Your task to perform on an android device: Search for Italian restaurants on Maps Image 0: 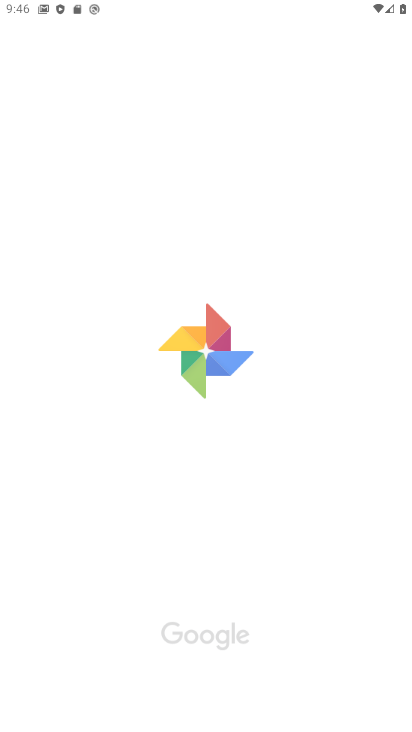
Step 0: drag from (255, 618) to (300, 136)
Your task to perform on an android device: Search for Italian restaurants on Maps Image 1: 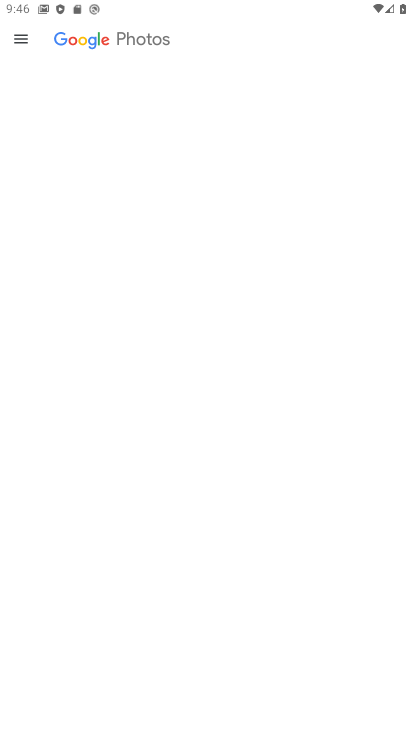
Step 1: press home button
Your task to perform on an android device: Search for Italian restaurants on Maps Image 2: 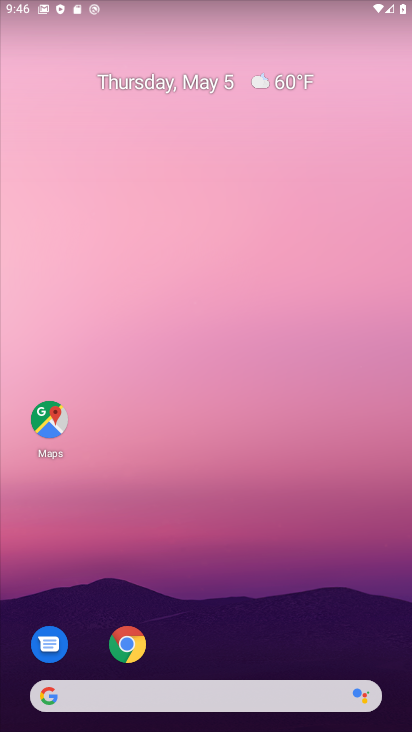
Step 2: click (44, 421)
Your task to perform on an android device: Search for Italian restaurants on Maps Image 3: 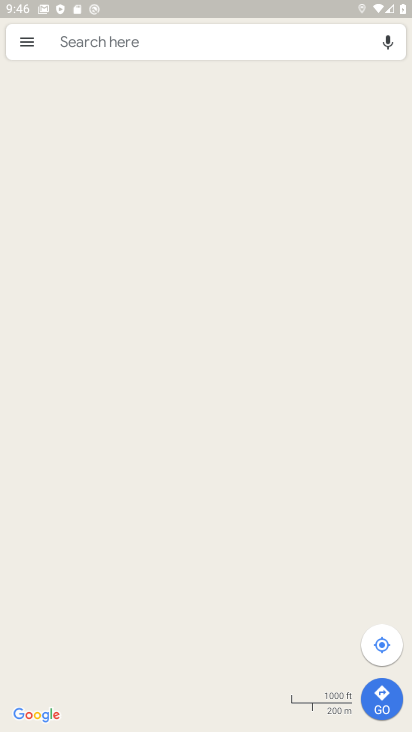
Step 3: click (156, 40)
Your task to perform on an android device: Search for Italian restaurants on Maps Image 4: 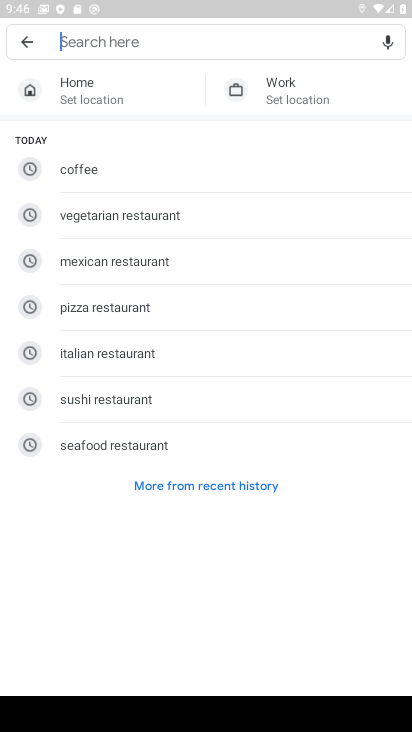
Step 4: type "Italian restaurant"
Your task to perform on an android device: Search for Italian restaurants on Maps Image 5: 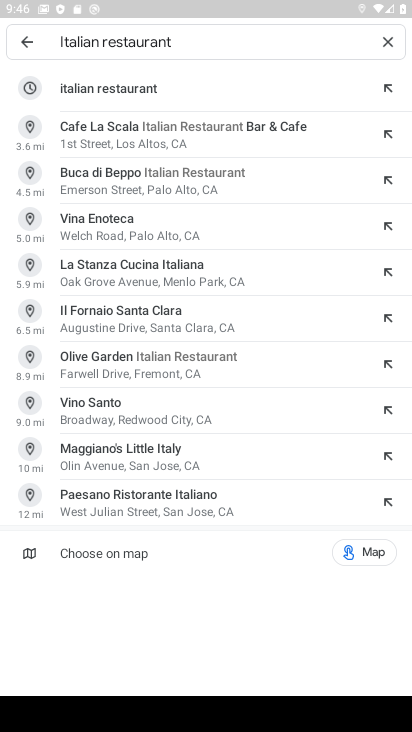
Step 5: click (122, 90)
Your task to perform on an android device: Search for Italian restaurants on Maps Image 6: 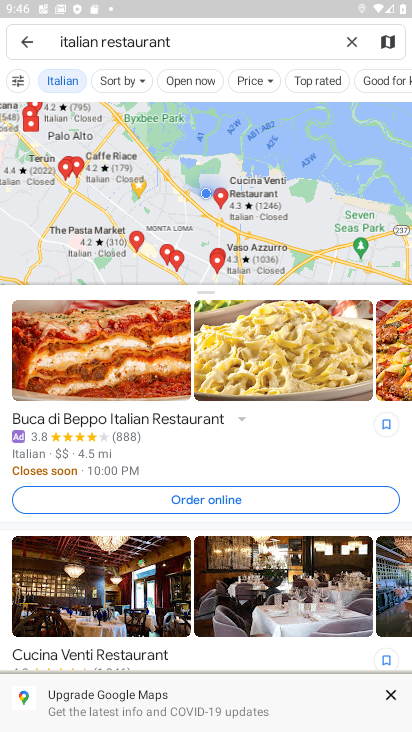
Step 6: task complete